Your task to perform on an android device: Open Android settings Image 0: 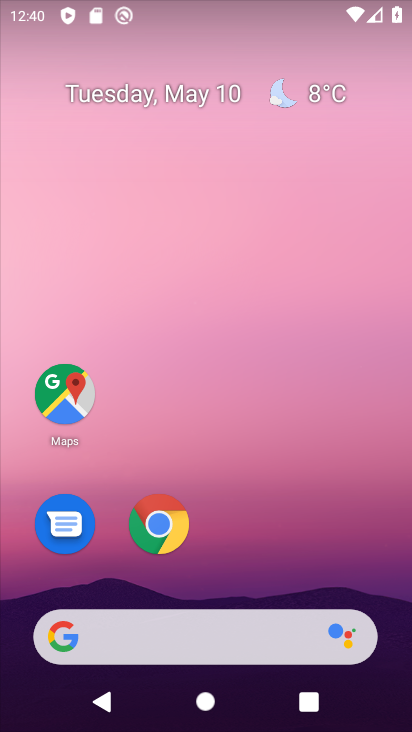
Step 0: drag from (333, 534) to (326, 42)
Your task to perform on an android device: Open Android settings Image 1: 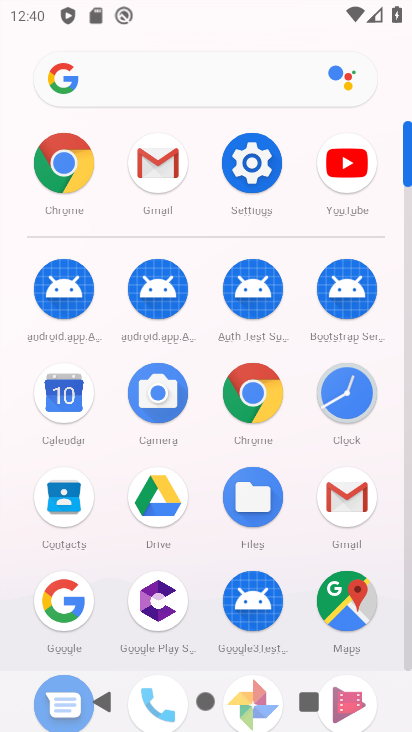
Step 1: click (248, 160)
Your task to perform on an android device: Open Android settings Image 2: 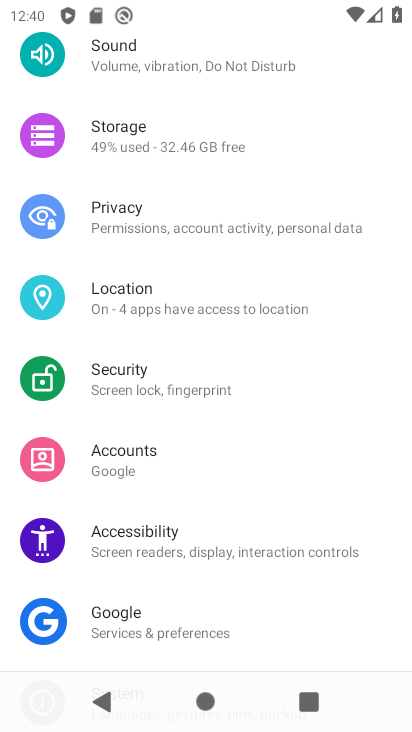
Step 2: drag from (188, 611) to (224, 365)
Your task to perform on an android device: Open Android settings Image 3: 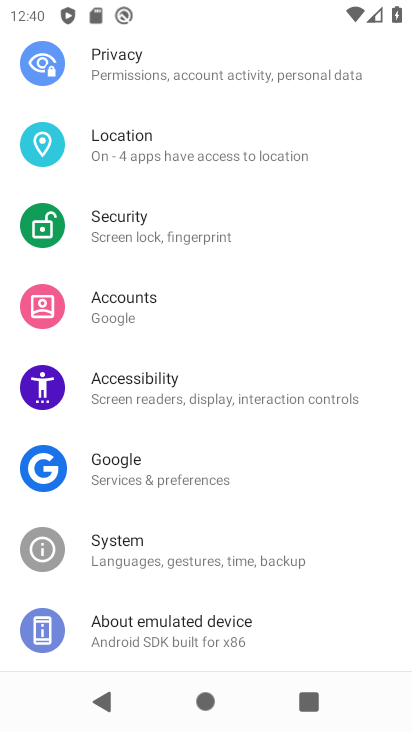
Step 3: click (188, 620)
Your task to perform on an android device: Open Android settings Image 4: 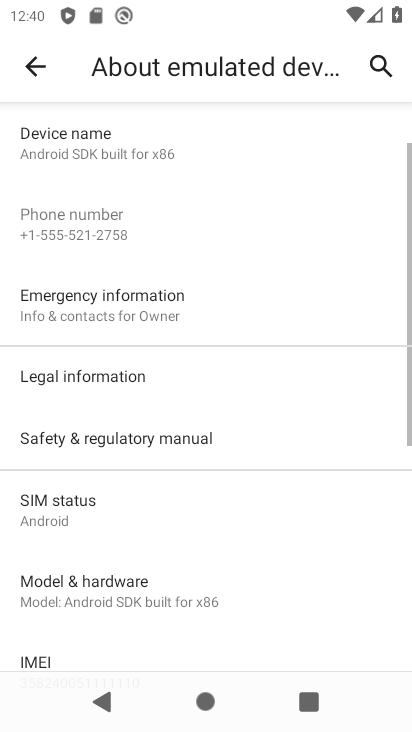
Step 4: task complete